Your task to perform on an android device: turn off data saver in the chrome app Image 0: 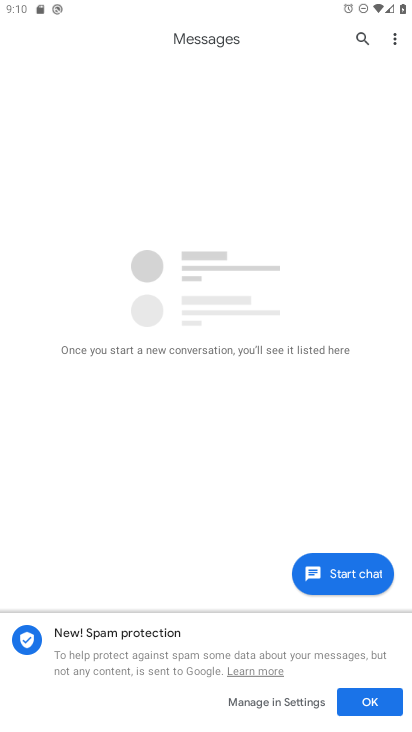
Step 0: press home button
Your task to perform on an android device: turn off data saver in the chrome app Image 1: 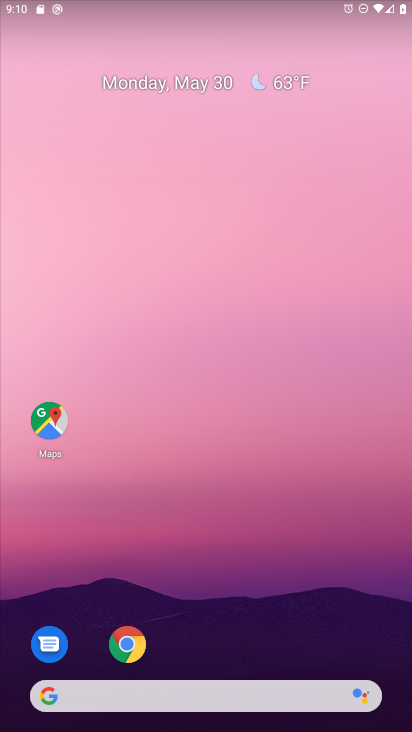
Step 1: click (124, 647)
Your task to perform on an android device: turn off data saver in the chrome app Image 2: 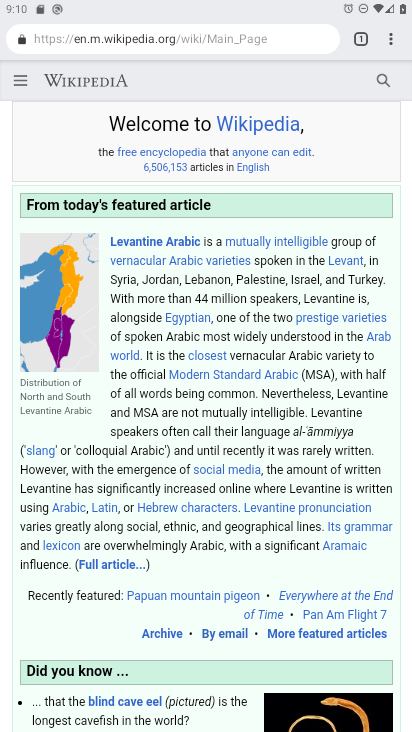
Step 2: click (385, 40)
Your task to perform on an android device: turn off data saver in the chrome app Image 3: 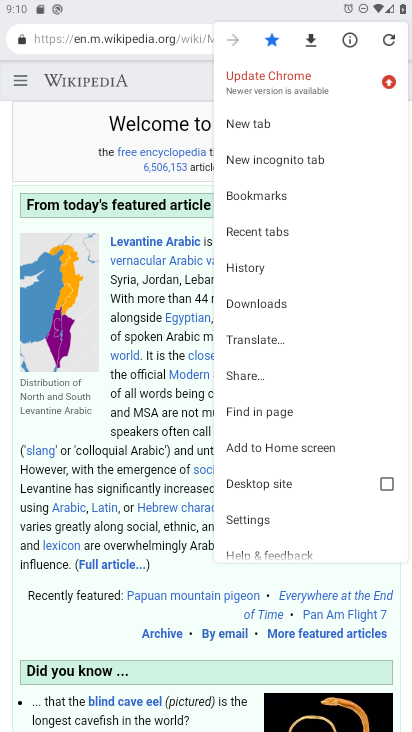
Step 3: click (264, 519)
Your task to perform on an android device: turn off data saver in the chrome app Image 4: 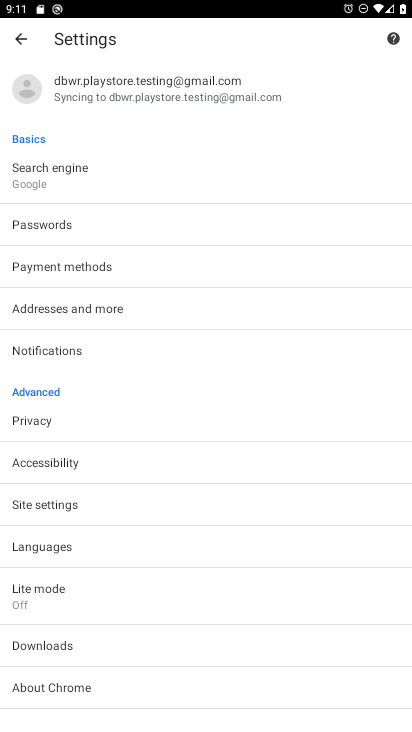
Step 4: click (72, 603)
Your task to perform on an android device: turn off data saver in the chrome app Image 5: 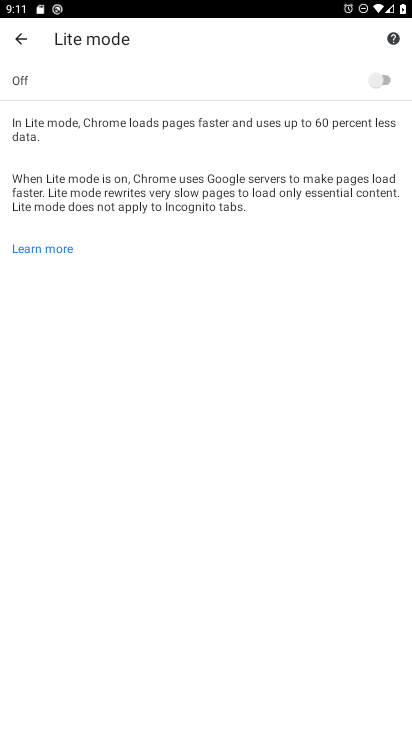
Step 5: task complete